Your task to perform on an android device: change your default location settings in chrome Image 0: 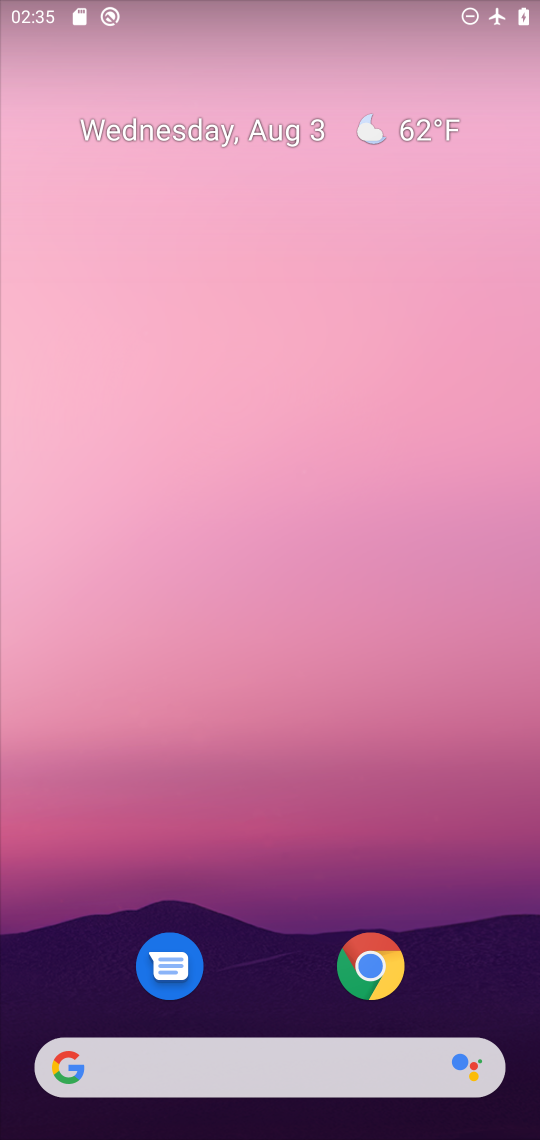
Step 0: drag from (269, 926) to (267, 307)
Your task to perform on an android device: change your default location settings in chrome Image 1: 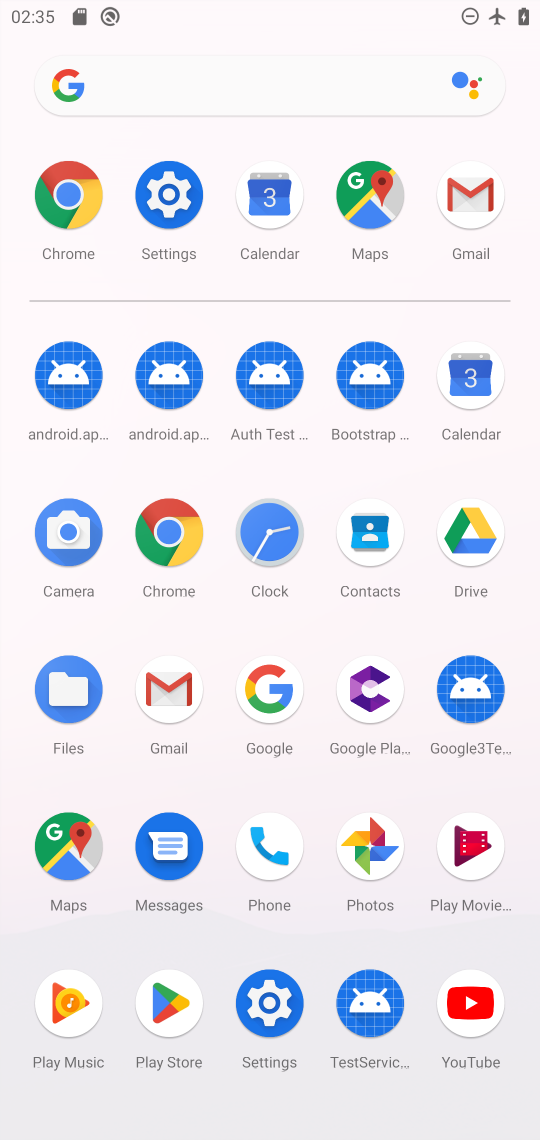
Step 1: click (93, 204)
Your task to perform on an android device: change your default location settings in chrome Image 2: 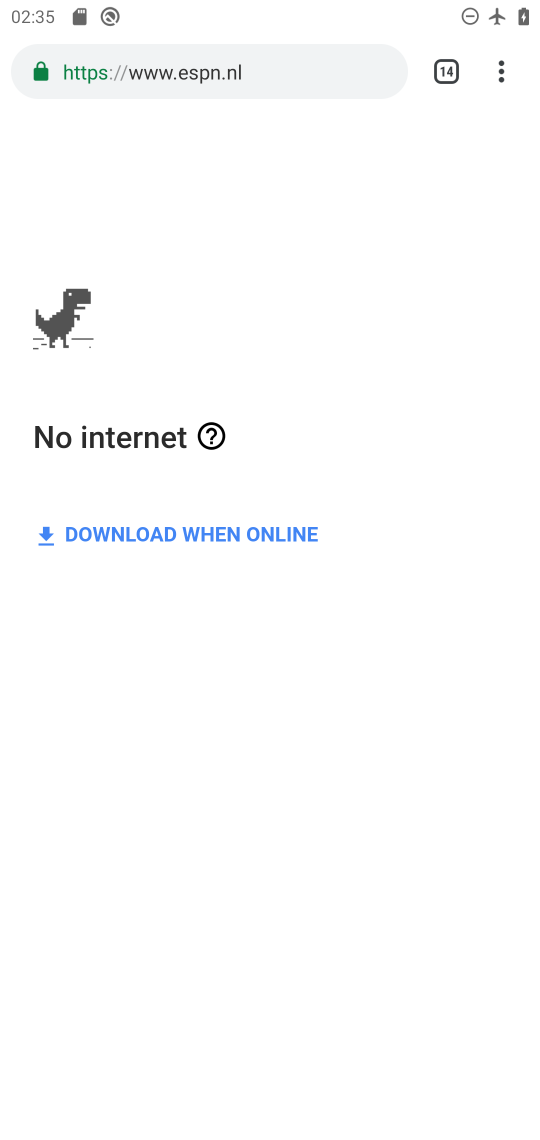
Step 2: click (506, 57)
Your task to perform on an android device: change your default location settings in chrome Image 3: 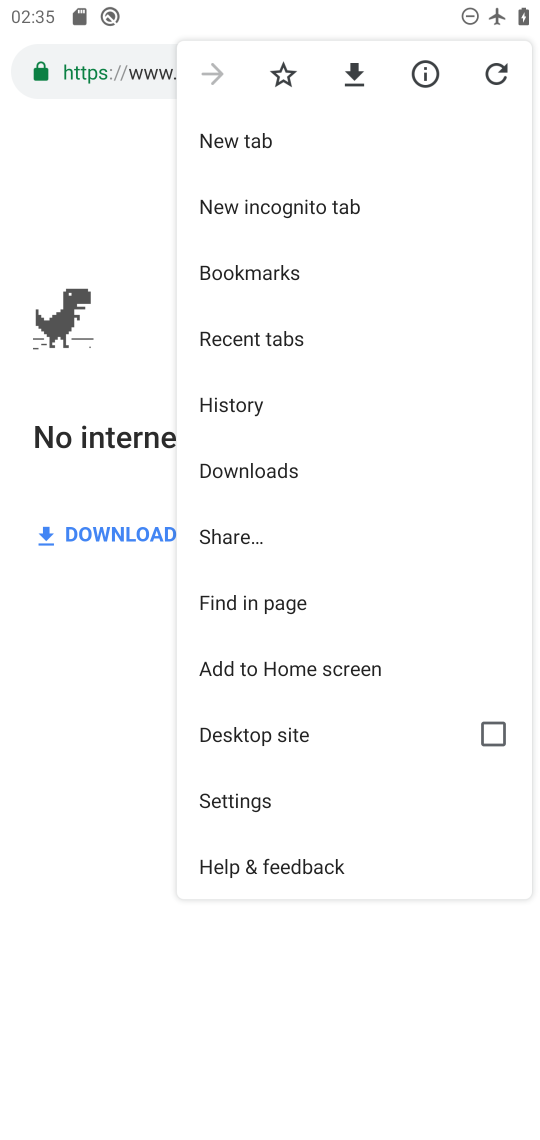
Step 3: click (269, 802)
Your task to perform on an android device: change your default location settings in chrome Image 4: 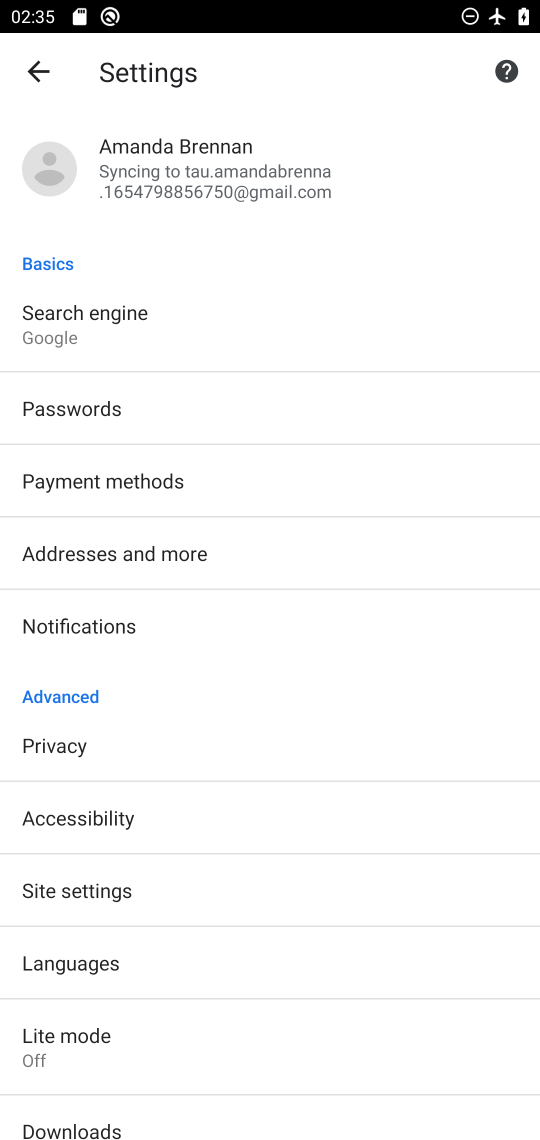
Step 4: click (95, 885)
Your task to perform on an android device: change your default location settings in chrome Image 5: 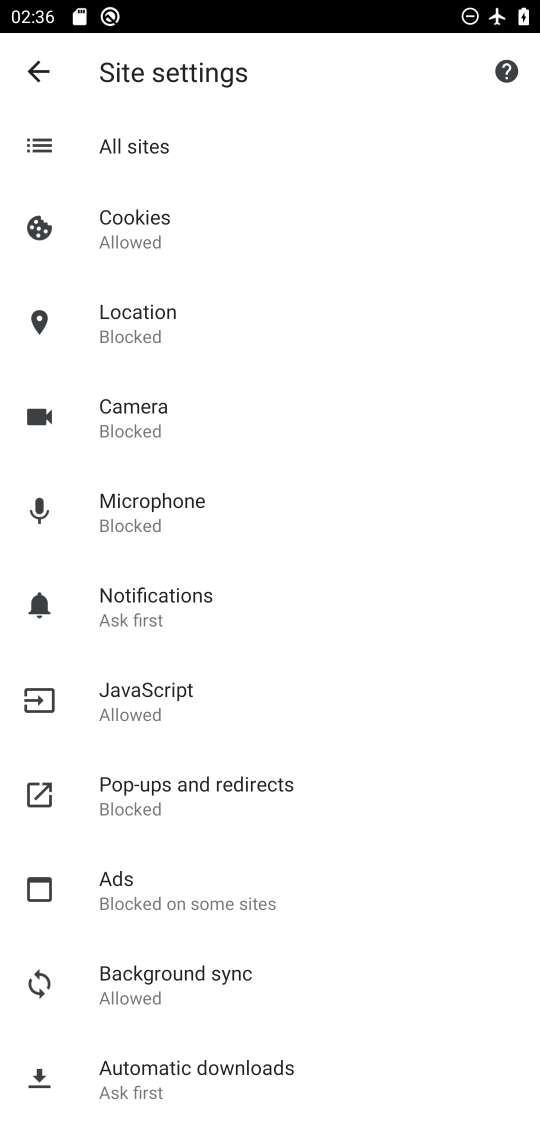
Step 5: click (163, 321)
Your task to perform on an android device: change your default location settings in chrome Image 6: 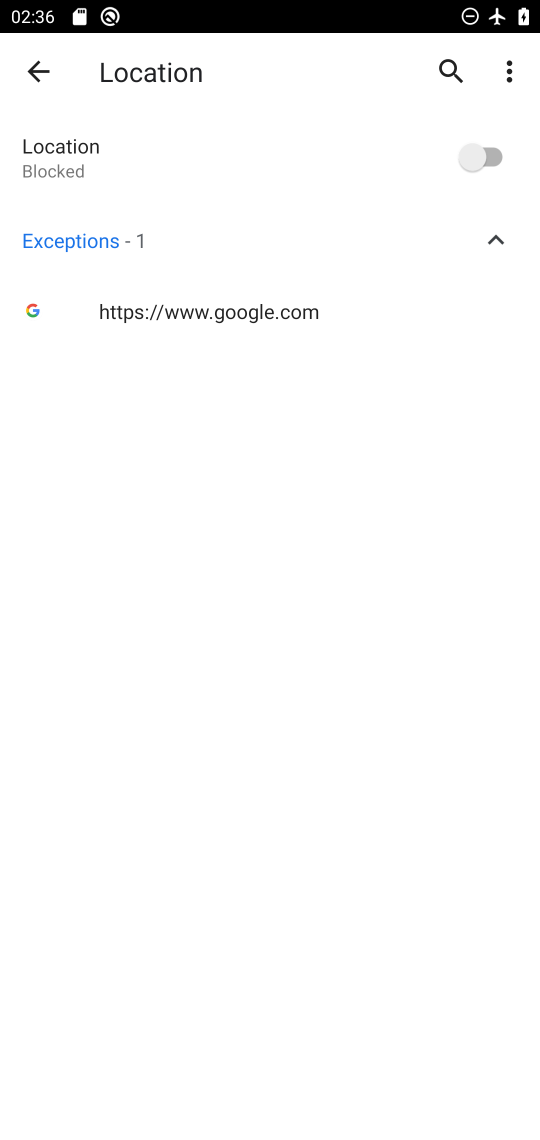
Step 6: click (510, 175)
Your task to perform on an android device: change your default location settings in chrome Image 7: 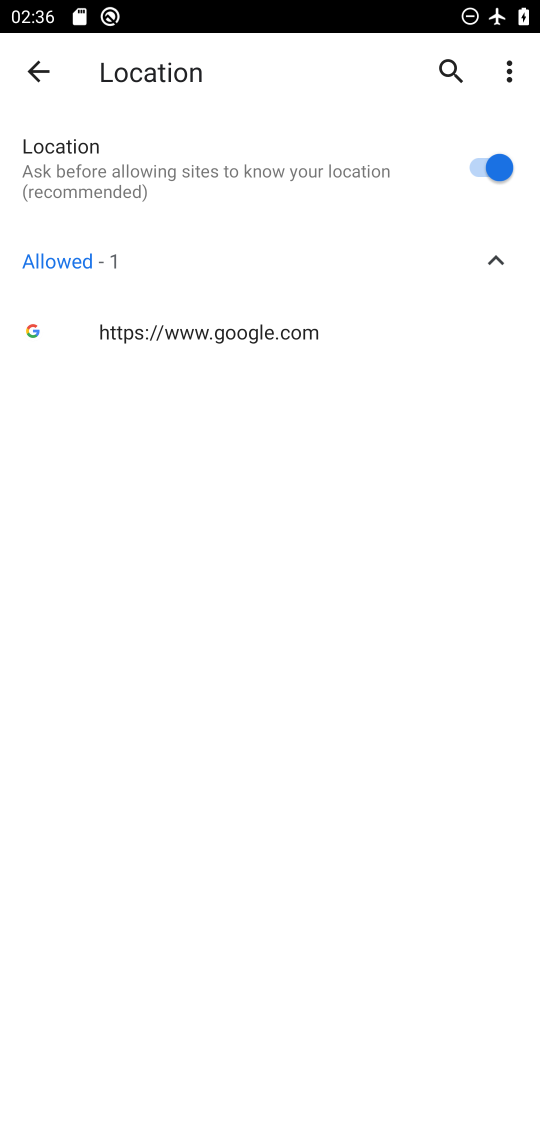
Step 7: task complete